Your task to perform on an android device: allow cookies in the chrome app Image 0: 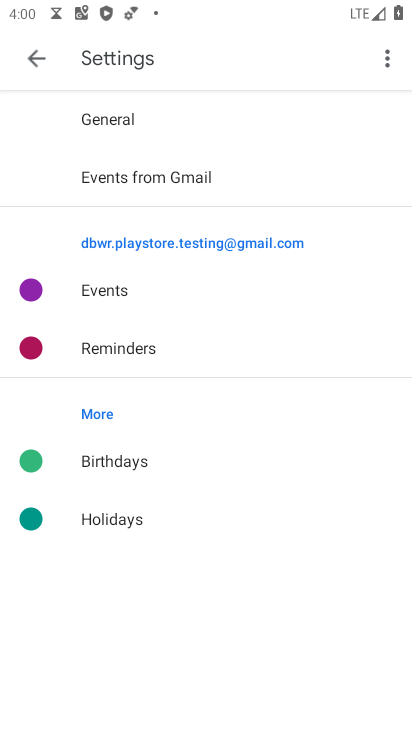
Step 0: press home button
Your task to perform on an android device: allow cookies in the chrome app Image 1: 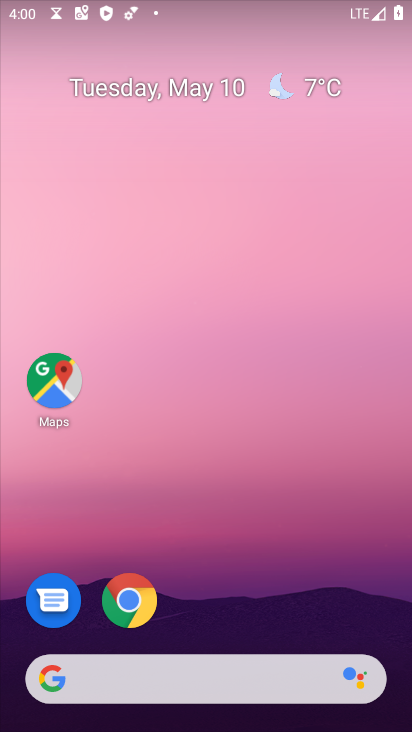
Step 1: click (131, 599)
Your task to perform on an android device: allow cookies in the chrome app Image 2: 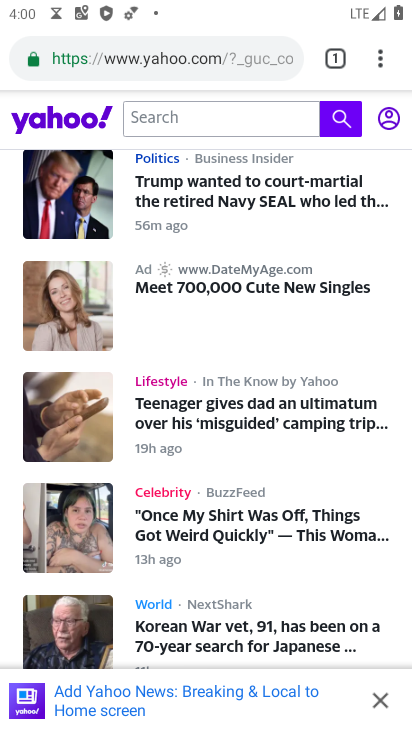
Step 2: click (330, 60)
Your task to perform on an android device: allow cookies in the chrome app Image 3: 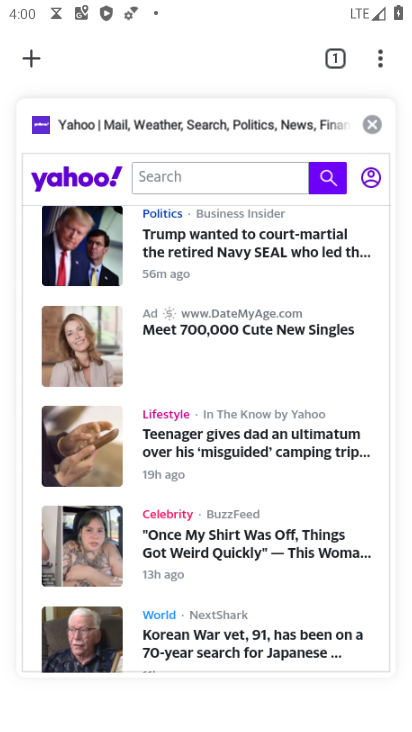
Step 3: click (372, 122)
Your task to perform on an android device: allow cookies in the chrome app Image 4: 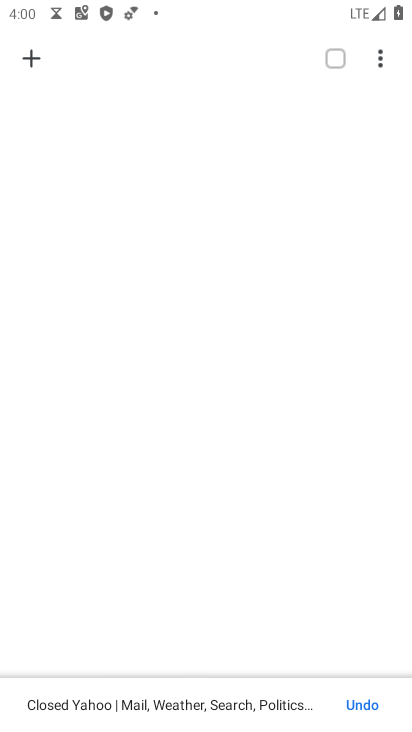
Step 4: click (382, 51)
Your task to perform on an android device: allow cookies in the chrome app Image 5: 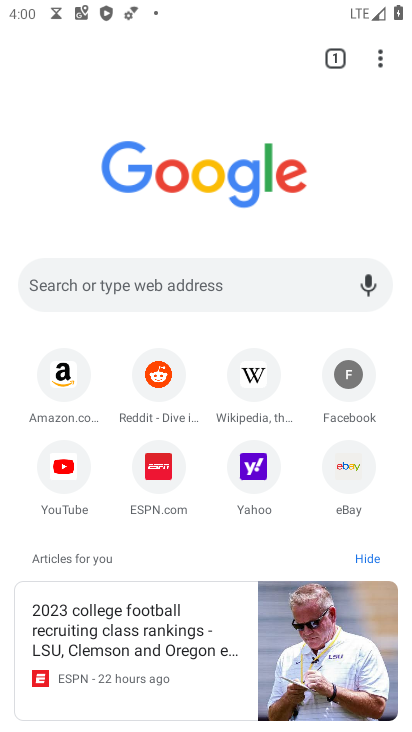
Step 5: click (382, 51)
Your task to perform on an android device: allow cookies in the chrome app Image 6: 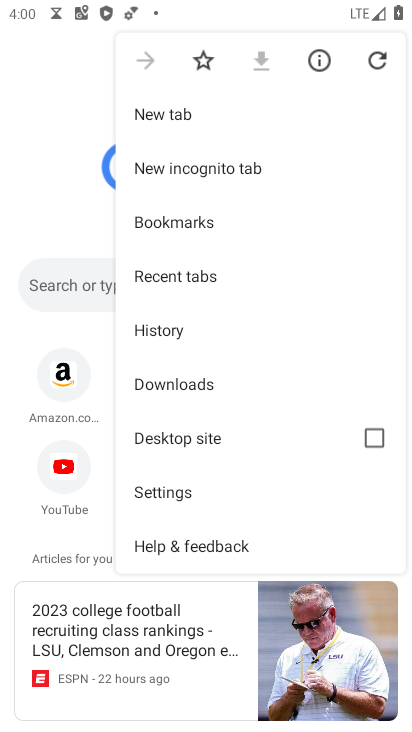
Step 6: click (186, 492)
Your task to perform on an android device: allow cookies in the chrome app Image 7: 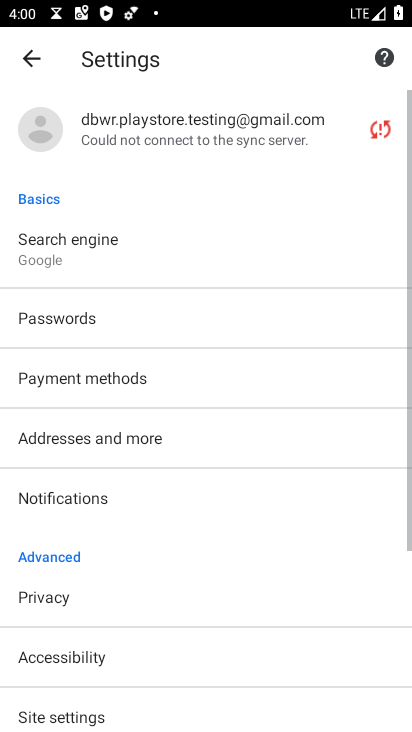
Step 7: drag from (197, 538) to (196, 245)
Your task to perform on an android device: allow cookies in the chrome app Image 8: 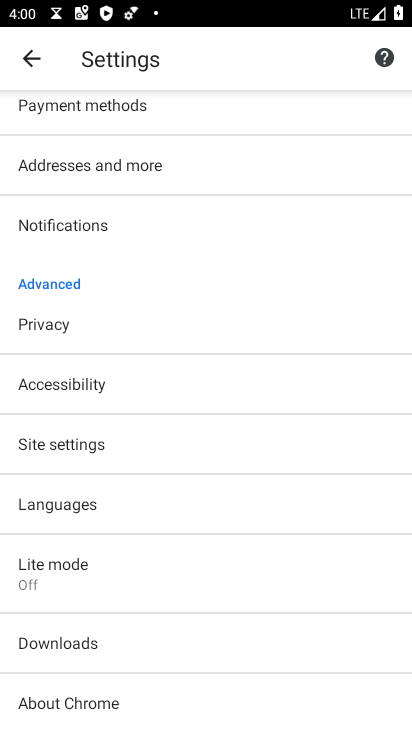
Step 8: click (249, 442)
Your task to perform on an android device: allow cookies in the chrome app Image 9: 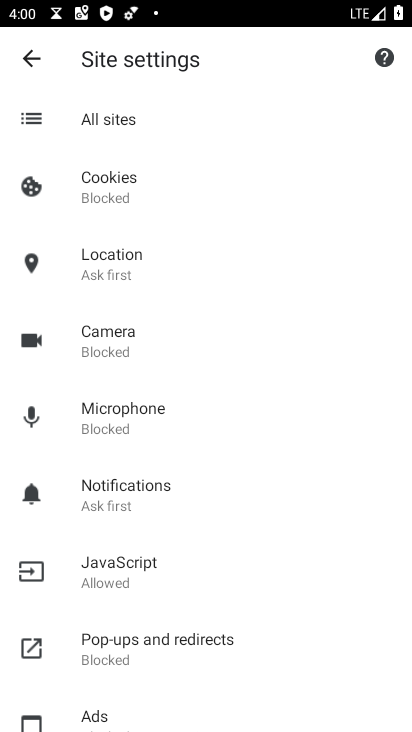
Step 9: click (188, 203)
Your task to perform on an android device: allow cookies in the chrome app Image 10: 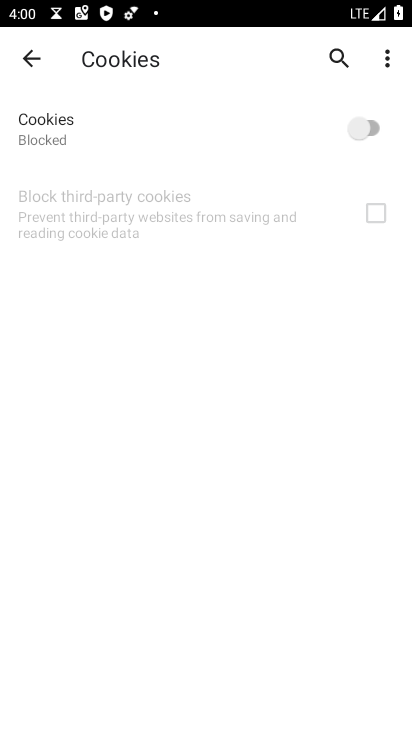
Step 10: click (363, 126)
Your task to perform on an android device: allow cookies in the chrome app Image 11: 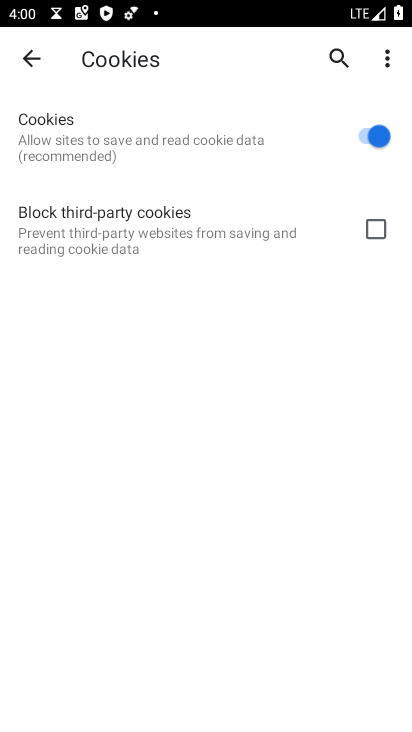
Step 11: task complete